Your task to perform on an android device: turn on notifications settings in the gmail app Image 0: 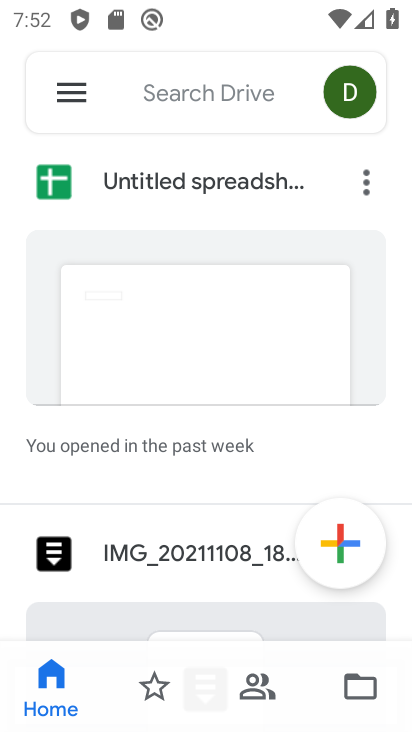
Step 0: press home button
Your task to perform on an android device: turn on notifications settings in the gmail app Image 1: 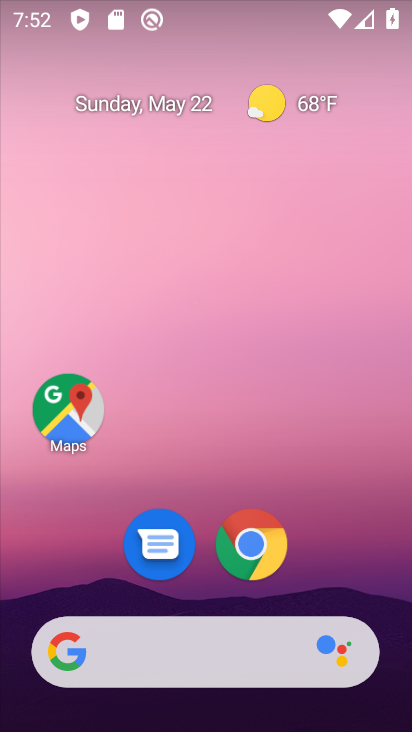
Step 1: click (395, 670)
Your task to perform on an android device: turn on notifications settings in the gmail app Image 2: 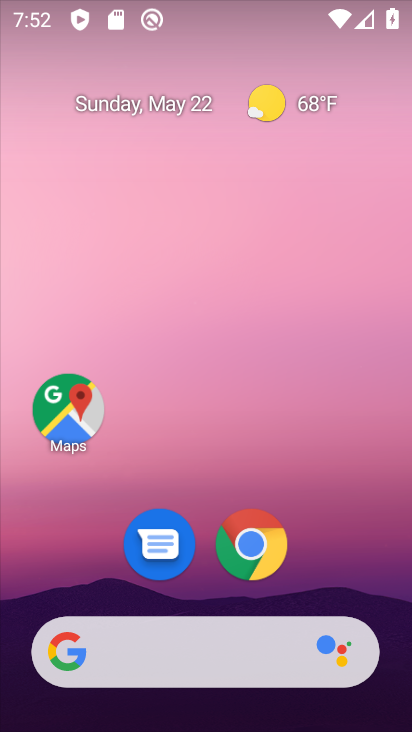
Step 2: drag from (395, 670) to (358, 61)
Your task to perform on an android device: turn on notifications settings in the gmail app Image 3: 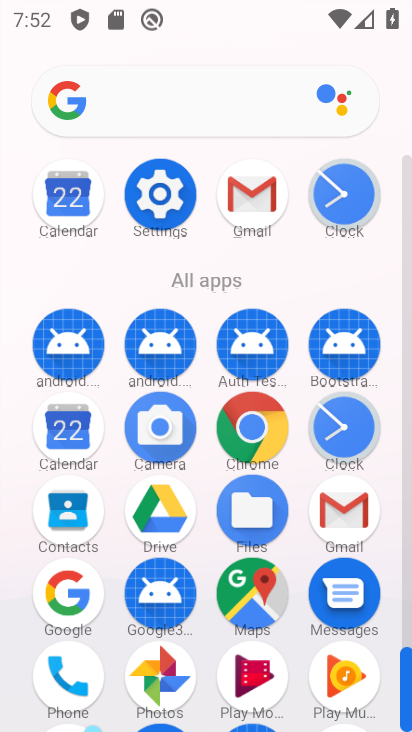
Step 3: click (337, 524)
Your task to perform on an android device: turn on notifications settings in the gmail app Image 4: 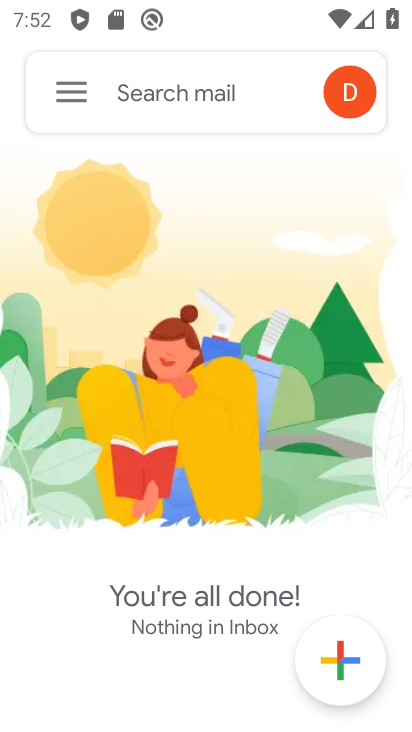
Step 4: click (57, 83)
Your task to perform on an android device: turn on notifications settings in the gmail app Image 5: 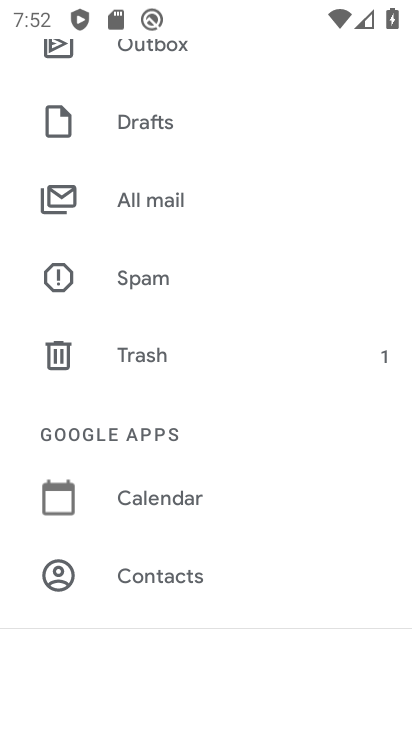
Step 5: drag from (261, 603) to (315, 275)
Your task to perform on an android device: turn on notifications settings in the gmail app Image 6: 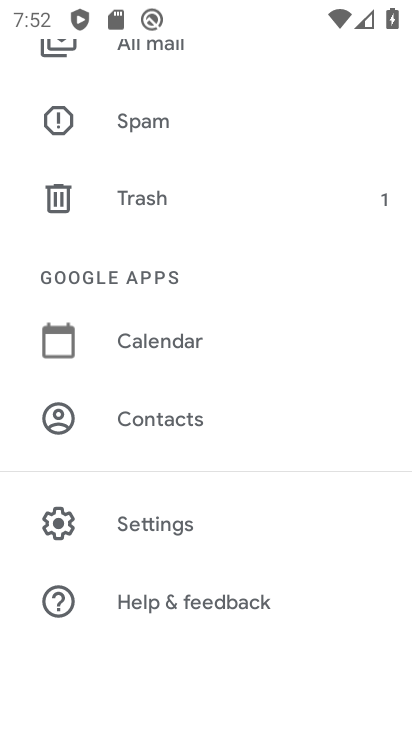
Step 6: click (166, 517)
Your task to perform on an android device: turn on notifications settings in the gmail app Image 7: 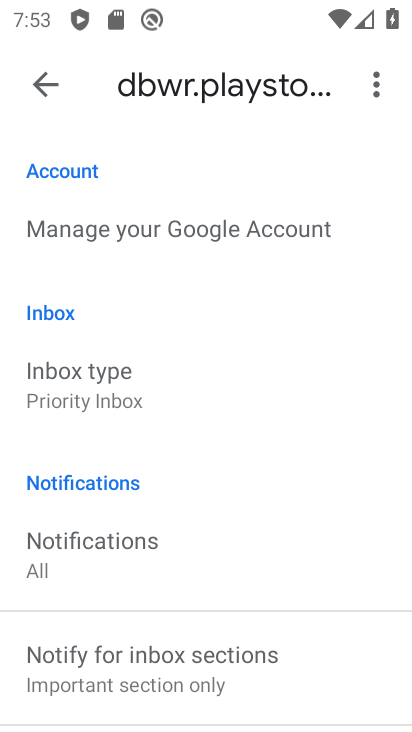
Step 7: click (146, 218)
Your task to perform on an android device: turn on notifications settings in the gmail app Image 8: 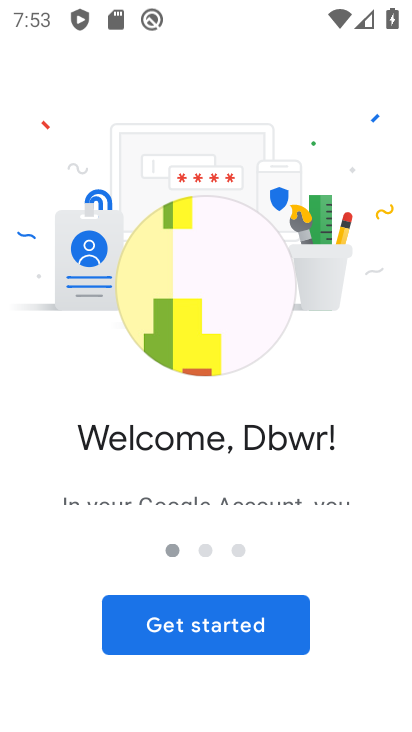
Step 8: press back button
Your task to perform on an android device: turn on notifications settings in the gmail app Image 9: 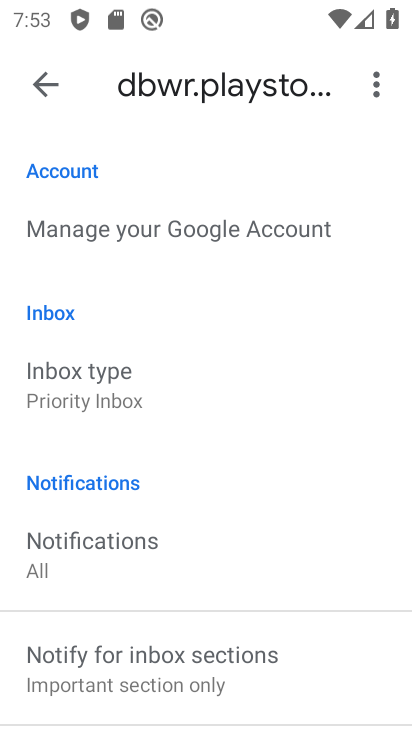
Step 9: click (131, 228)
Your task to perform on an android device: turn on notifications settings in the gmail app Image 10: 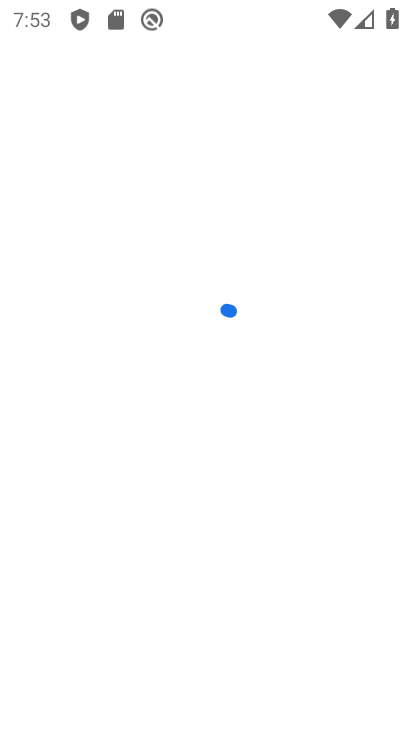
Step 10: click (131, 228)
Your task to perform on an android device: turn on notifications settings in the gmail app Image 11: 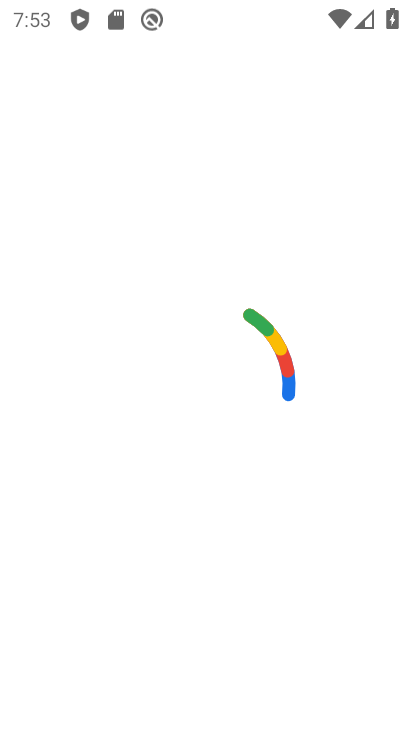
Step 11: press back button
Your task to perform on an android device: turn on notifications settings in the gmail app Image 12: 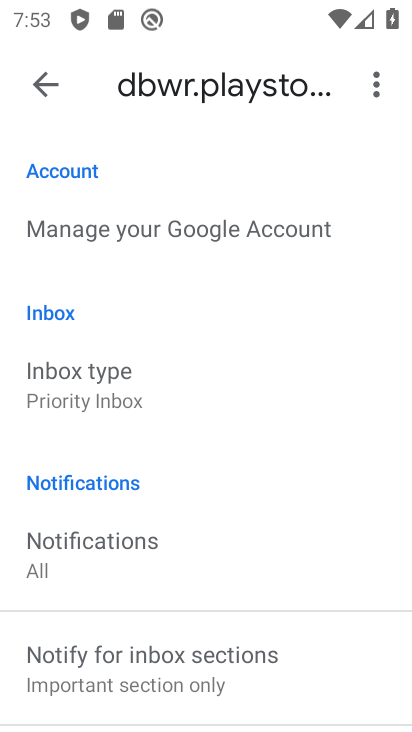
Step 12: click (33, 80)
Your task to perform on an android device: turn on notifications settings in the gmail app Image 13: 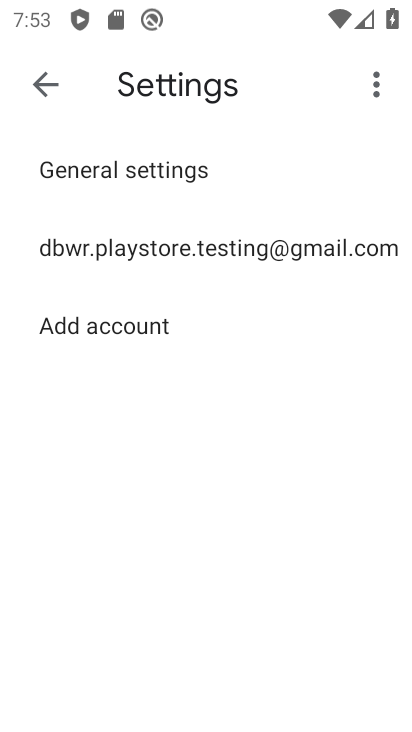
Step 13: click (67, 171)
Your task to perform on an android device: turn on notifications settings in the gmail app Image 14: 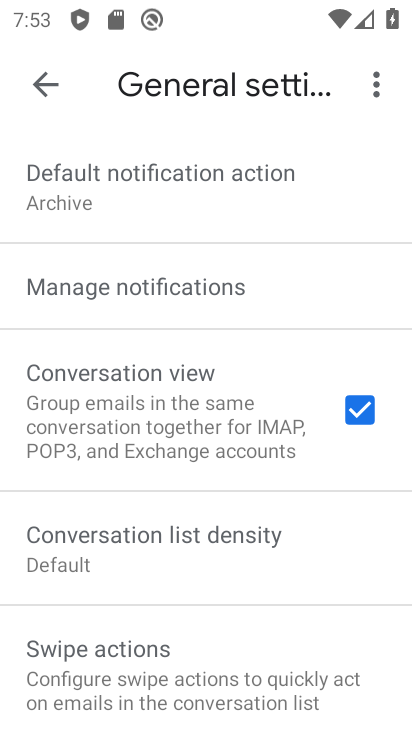
Step 14: click (112, 287)
Your task to perform on an android device: turn on notifications settings in the gmail app Image 15: 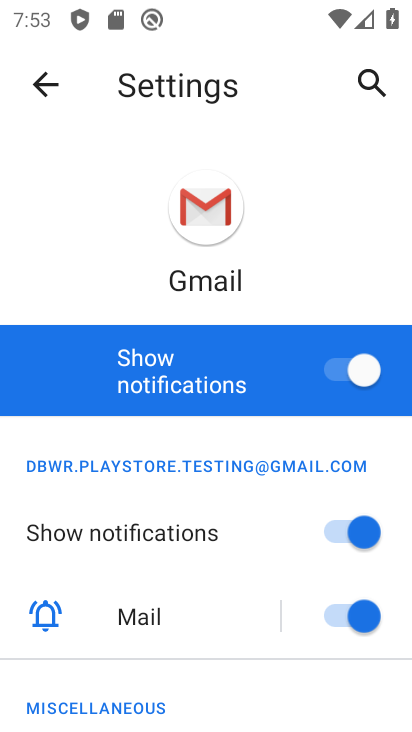
Step 15: task complete